Your task to perform on an android device: set default search engine in the chrome app Image 0: 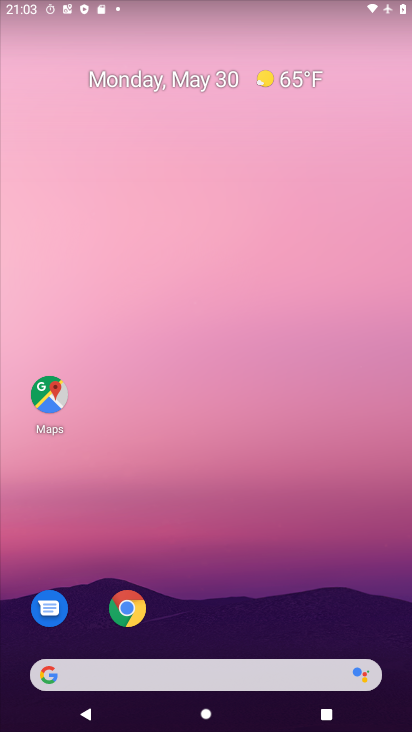
Step 0: click (126, 618)
Your task to perform on an android device: set default search engine in the chrome app Image 1: 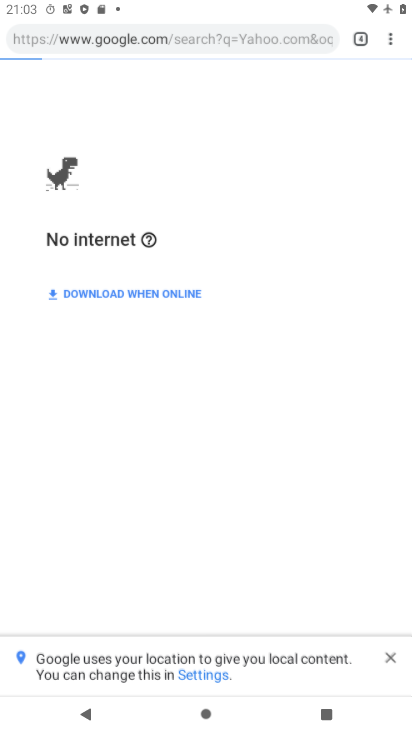
Step 1: click (390, 45)
Your task to perform on an android device: set default search engine in the chrome app Image 2: 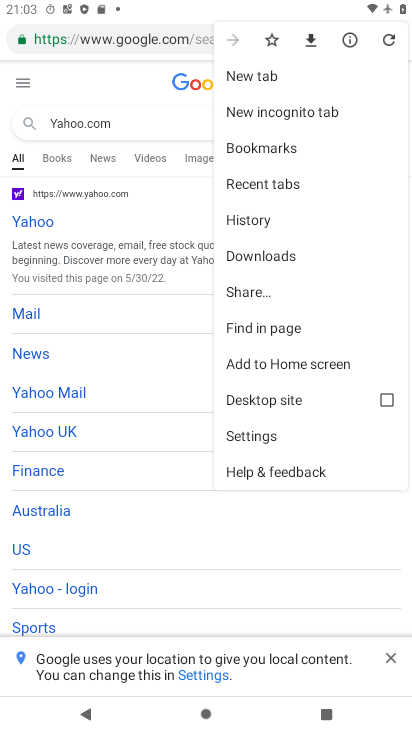
Step 2: click (295, 429)
Your task to perform on an android device: set default search engine in the chrome app Image 3: 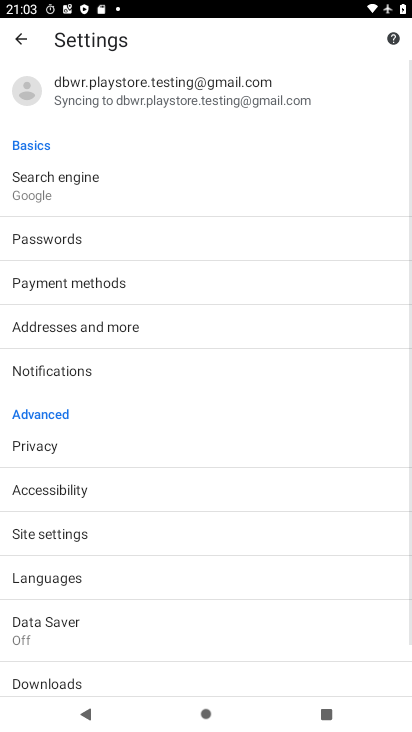
Step 3: click (149, 198)
Your task to perform on an android device: set default search engine in the chrome app Image 4: 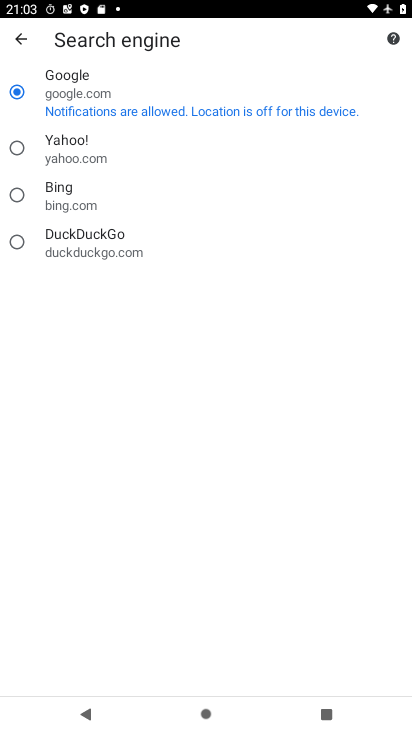
Step 4: click (54, 151)
Your task to perform on an android device: set default search engine in the chrome app Image 5: 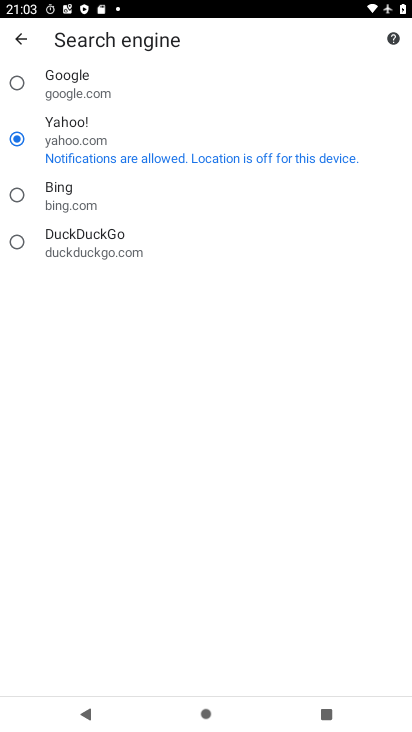
Step 5: task complete